Your task to perform on an android device: open the mobile data screen to see how much data has been used Image 0: 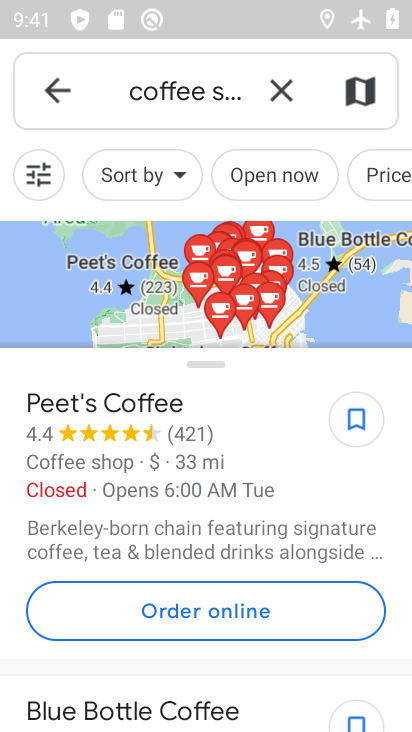
Step 0: press home button
Your task to perform on an android device: open the mobile data screen to see how much data has been used Image 1: 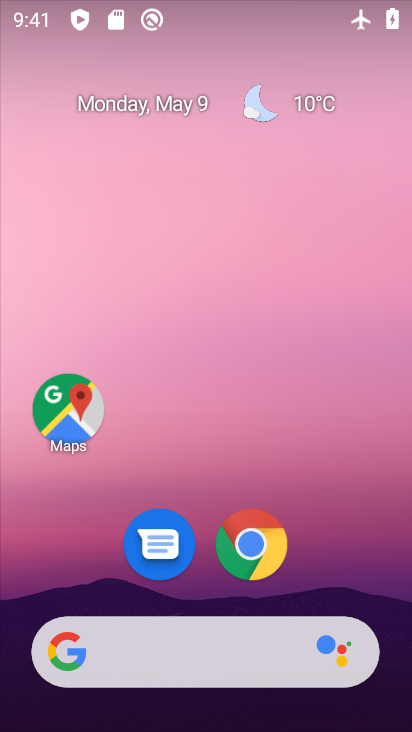
Step 1: drag from (408, 373) to (392, 120)
Your task to perform on an android device: open the mobile data screen to see how much data has been used Image 2: 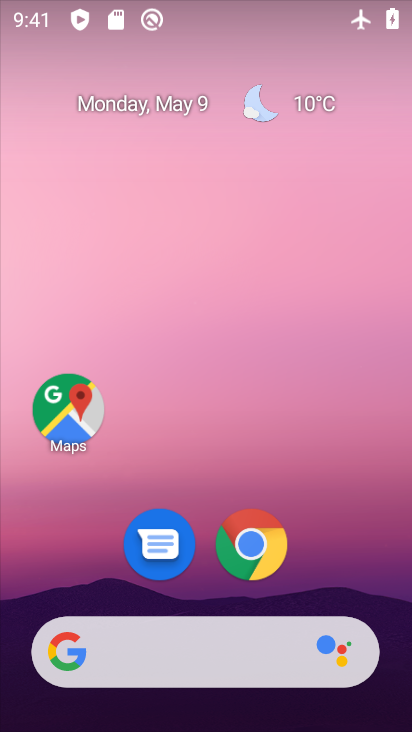
Step 2: drag from (398, 654) to (348, 137)
Your task to perform on an android device: open the mobile data screen to see how much data has been used Image 3: 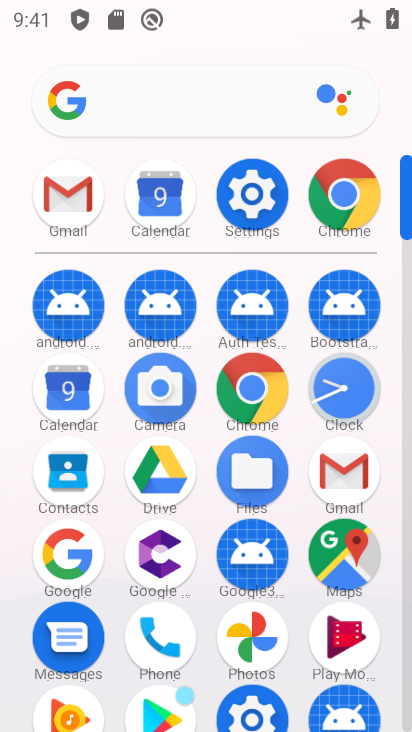
Step 3: click (260, 197)
Your task to perform on an android device: open the mobile data screen to see how much data has been used Image 4: 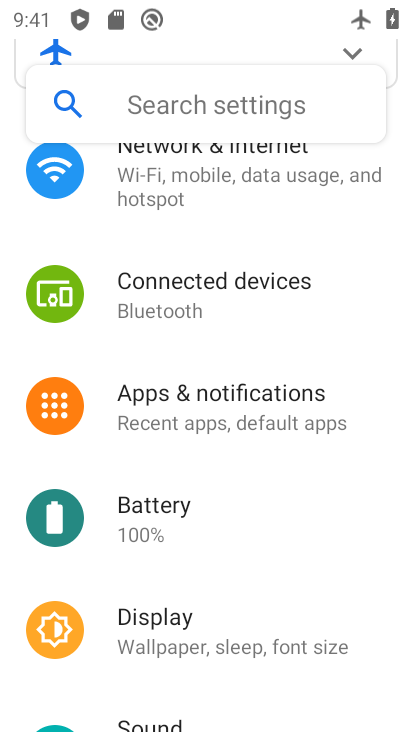
Step 4: click (171, 159)
Your task to perform on an android device: open the mobile data screen to see how much data has been used Image 5: 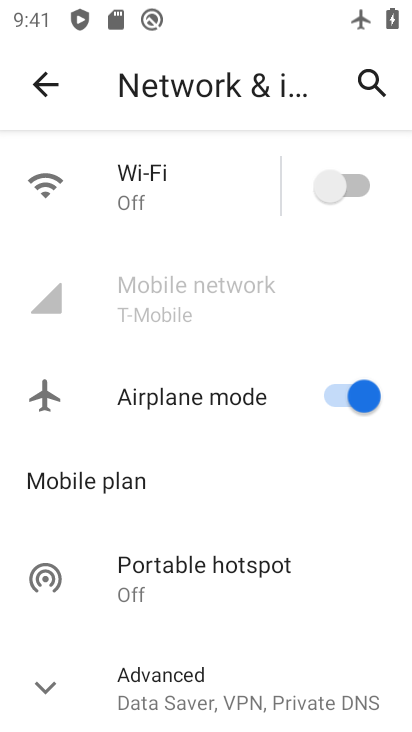
Step 5: click (183, 311)
Your task to perform on an android device: open the mobile data screen to see how much data has been used Image 6: 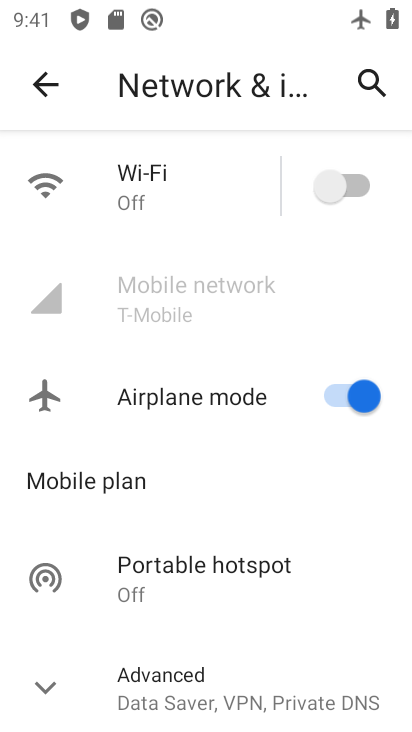
Step 6: task complete